Your task to perform on an android device: open a bookmark in the chrome app Image 0: 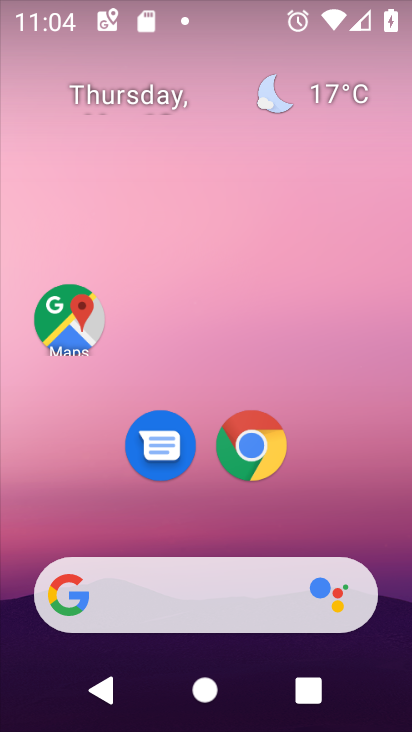
Step 0: drag from (192, 531) to (238, 221)
Your task to perform on an android device: open a bookmark in the chrome app Image 1: 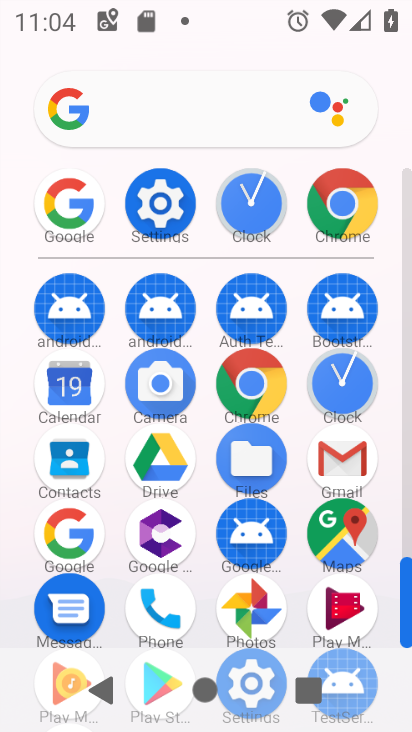
Step 1: click (261, 387)
Your task to perform on an android device: open a bookmark in the chrome app Image 2: 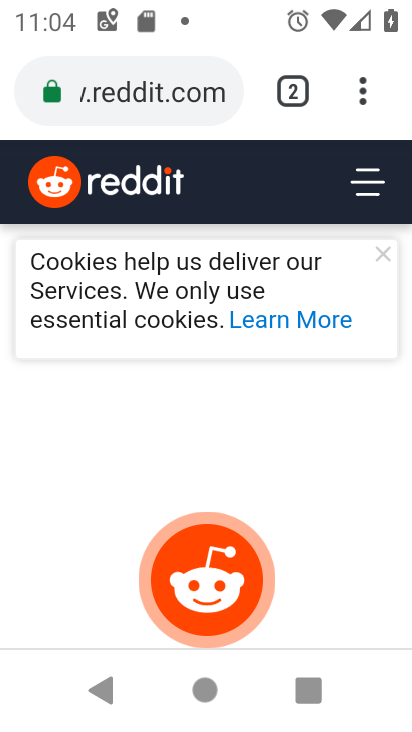
Step 2: click (373, 100)
Your task to perform on an android device: open a bookmark in the chrome app Image 3: 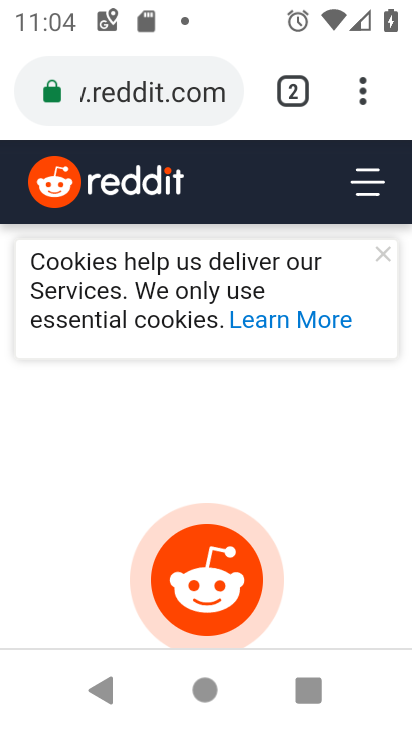
Step 3: click (367, 95)
Your task to perform on an android device: open a bookmark in the chrome app Image 4: 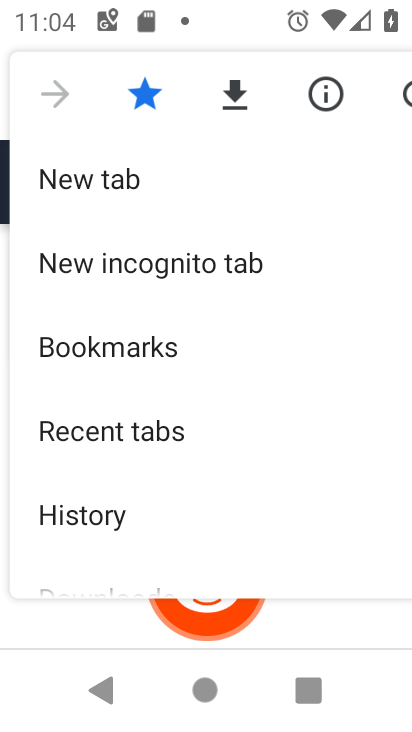
Step 4: click (173, 358)
Your task to perform on an android device: open a bookmark in the chrome app Image 5: 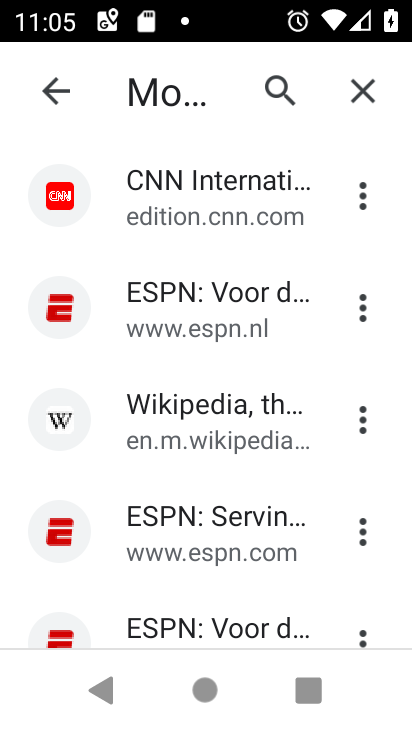
Step 5: click (207, 238)
Your task to perform on an android device: open a bookmark in the chrome app Image 6: 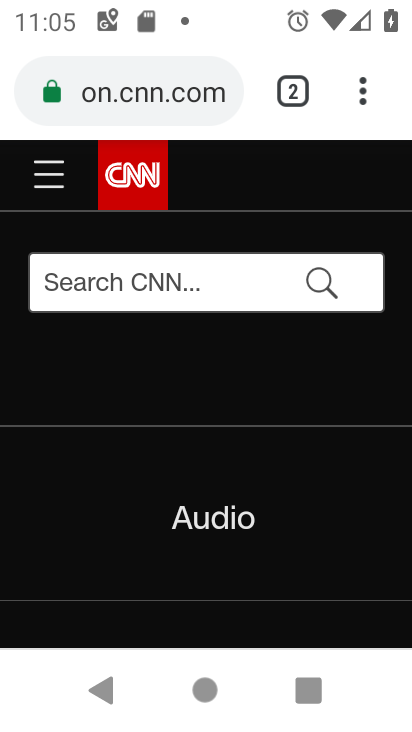
Step 6: task complete